Your task to perform on an android device: show emergency info Image 0: 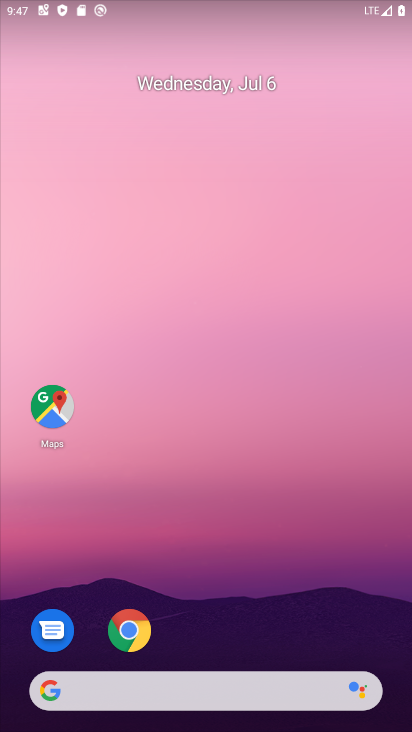
Step 0: drag from (381, 641) to (310, 67)
Your task to perform on an android device: show emergency info Image 1: 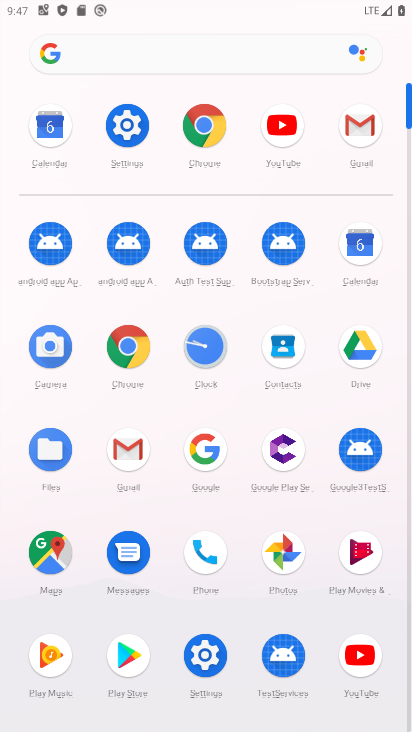
Step 1: click (204, 658)
Your task to perform on an android device: show emergency info Image 2: 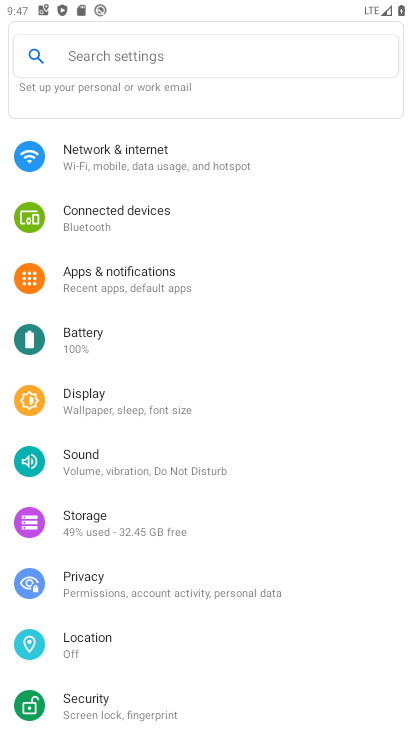
Step 2: drag from (299, 668) to (277, 307)
Your task to perform on an android device: show emergency info Image 3: 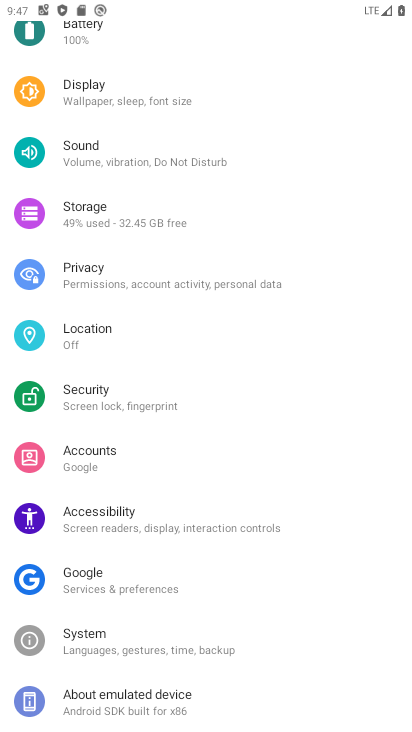
Step 3: drag from (260, 664) to (309, 331)
Your task to perform on an android device: show emergency info Image 4: 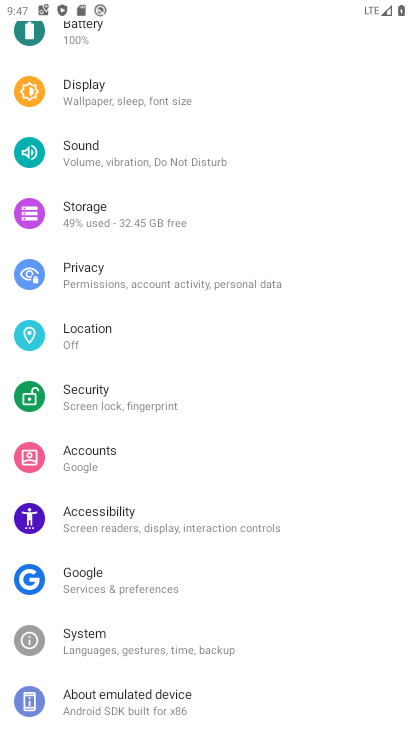
Step 4: click (92, 701)
Your task to perform on an android device: show emergency info Image 5: 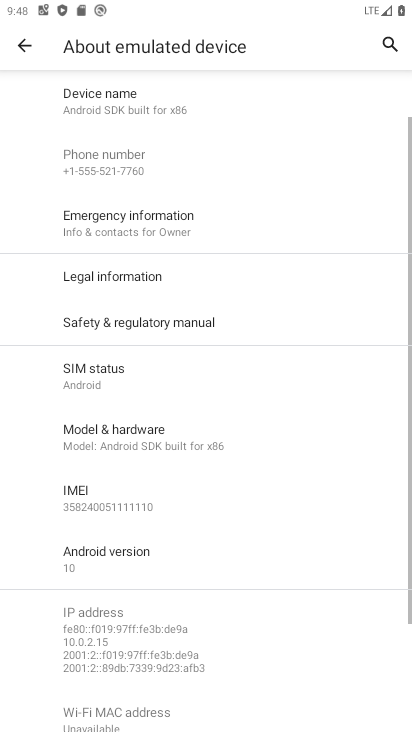
Step 5: click (115, 221)
Your task to perform on an android device: show emergency info Image 6: 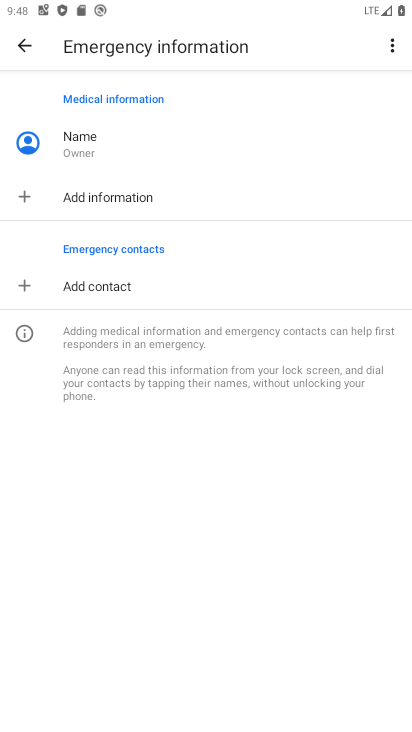
Step 6: task complete